Your task to perform on an android device: Go to sound settings Image 0: 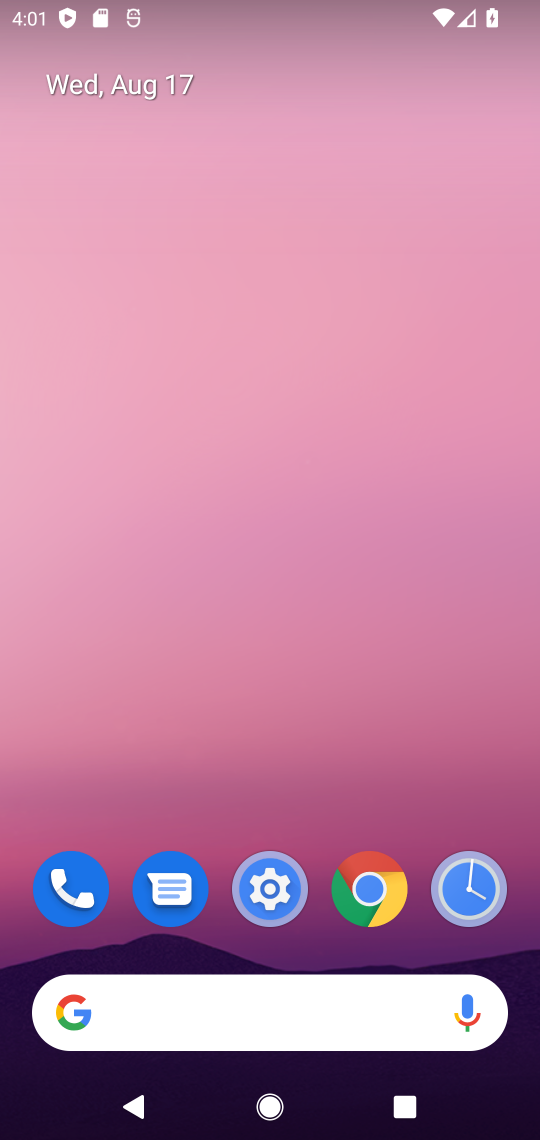
Step 0: click (273, 890)
Your task to perform on an android device: Go to sound settings Image 1: 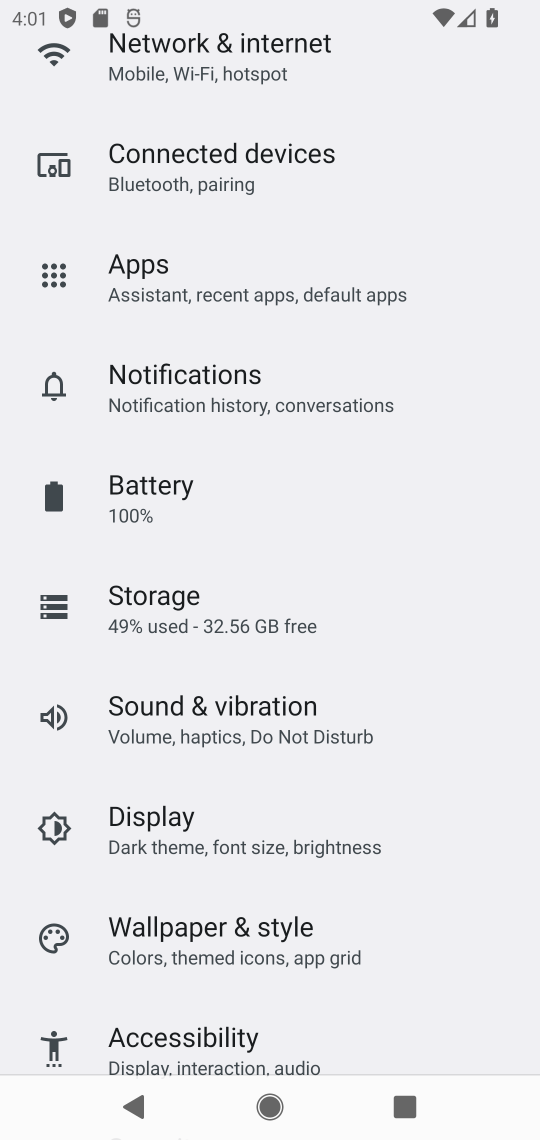
Step 1: drag from (415, 863) to (362, 512)
Your task to perform on an android device: Go to sound settings Image 2: 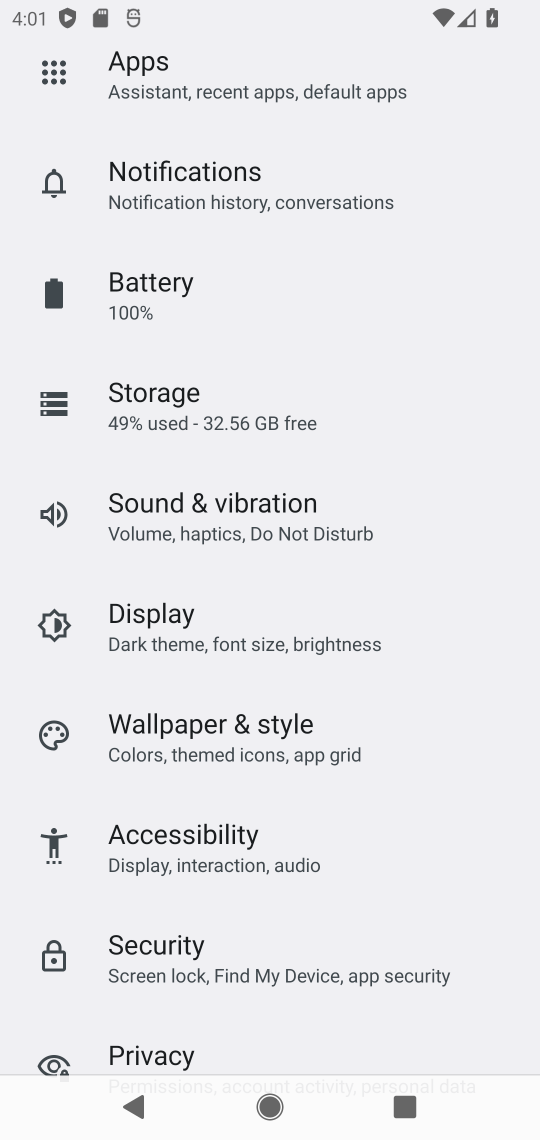
Step 2: click (167, 507)
Your task to perform on an android device: Go to sound settings Image 3: 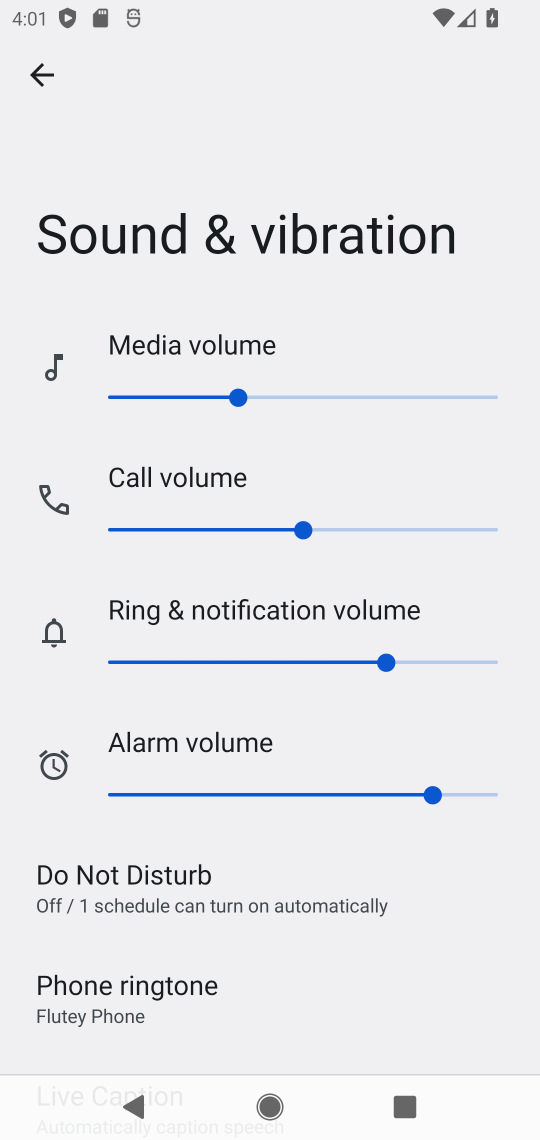
Step 3: task complete